Your task to perform on an android device: toggle show notifications on the lock screen Image 0: 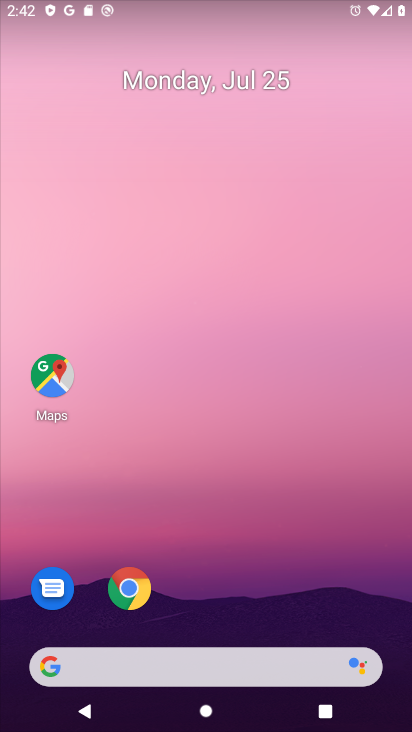
Step 0: press home button
Your task to perform on an android device: toggle show notifications on the lock screen Image 1: 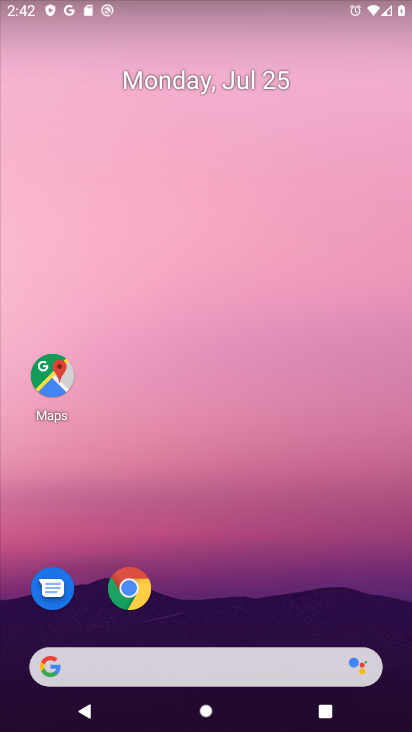
Step 1: drag from (212, 625) to (233, 0)
Your task to perform on an android device: toggle show notifications on the lock screen Image 2: 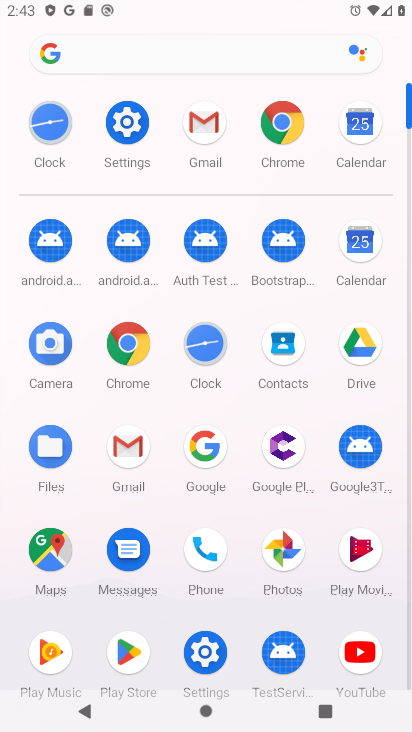
Step 2: click (122, 114)
Your task to perform on an android device: toggle show notifications on the lock screen Image 3: 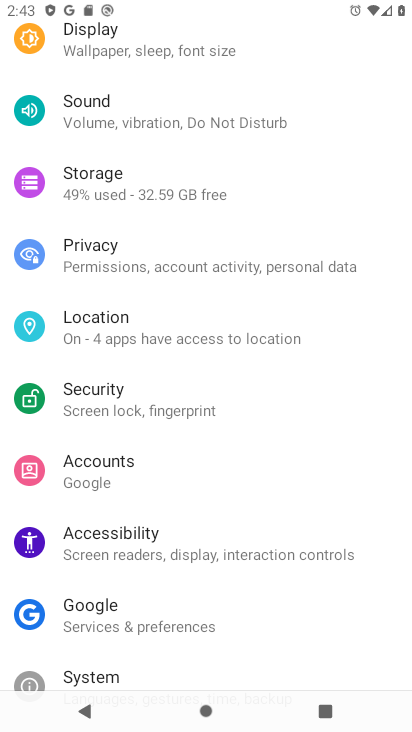
Step 3: drag from (142, 76) to (178, 531)
Your task to perform on an android device: toggle show notifications on the lock screen Image 4: 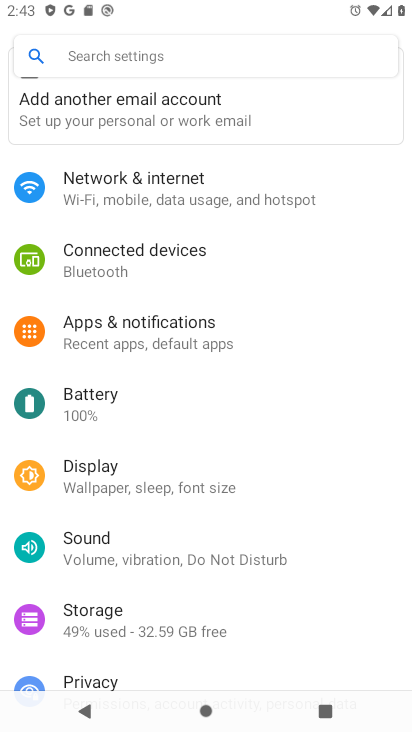
Step 4: click (231, 321)
Your task to perform on an android device: toggle show notifications on the lock screen Image 5: 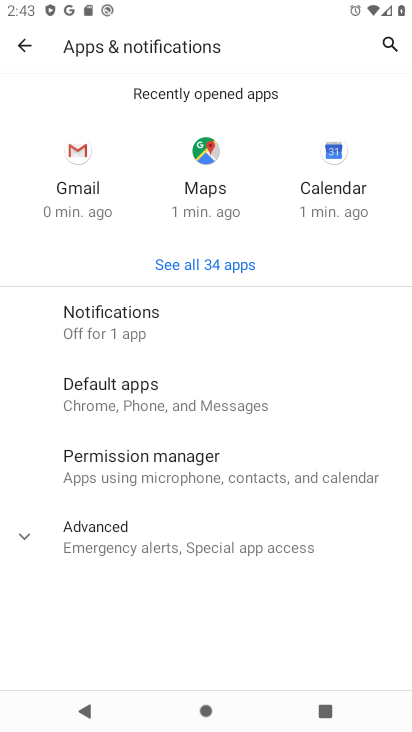
Step 5: click (31, 531)
Your task to perform on an android device: toggle show notifications on the lock screen Image 6: 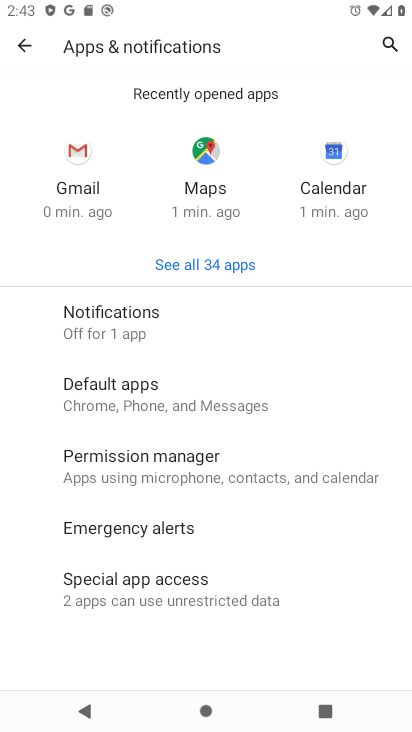
Step 6: click (193, 316)
Your task to perform on an android device: toggle show notifications on the lock screen Image 7: 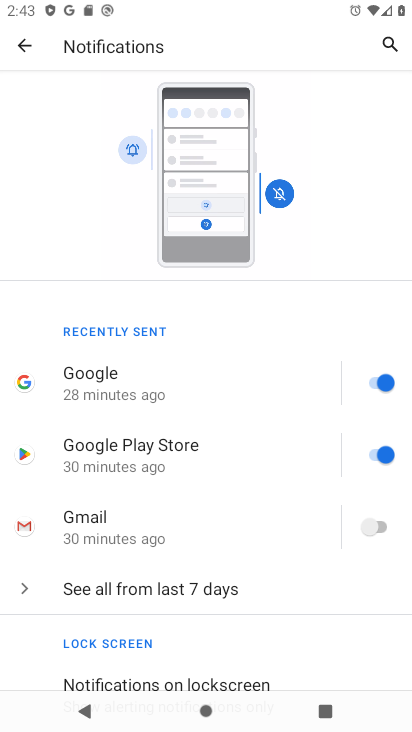
Step 7: click (284, 675)
Your task to perform on an android device: toggle show notifications on the lock screen Image 8: 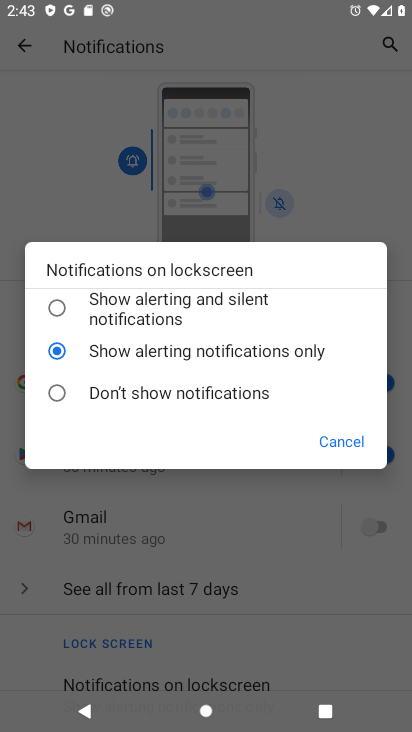
Step 8: click (66, 305)
Your task to perform on an android device: toggle show notifications on the lock screen Image 9: 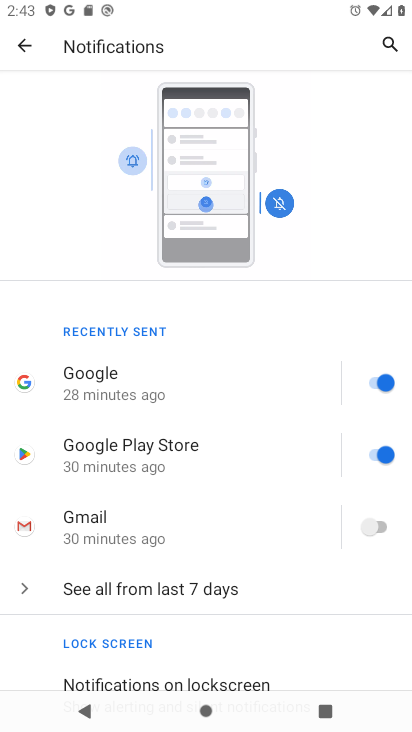
Step 9: task complete